Your task to perform on an android device: Open Amazon Image 0: 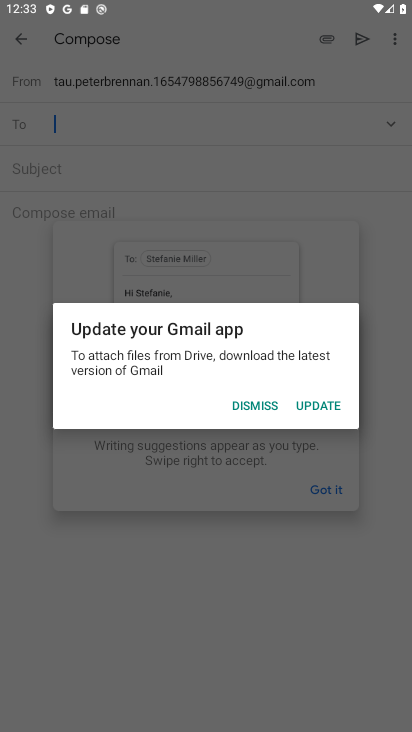
Step 0: press home button
Your task to perform on an android device: Open Amazon Image 1: 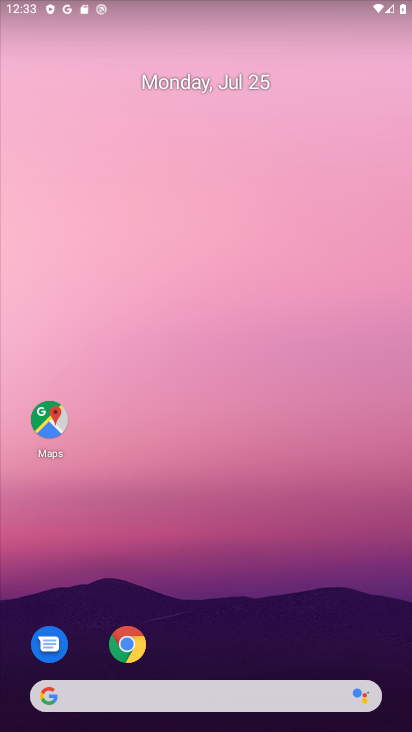
Step 1: click (129, 647)
Your task to perform on an android device: Open Amazon Image 2: 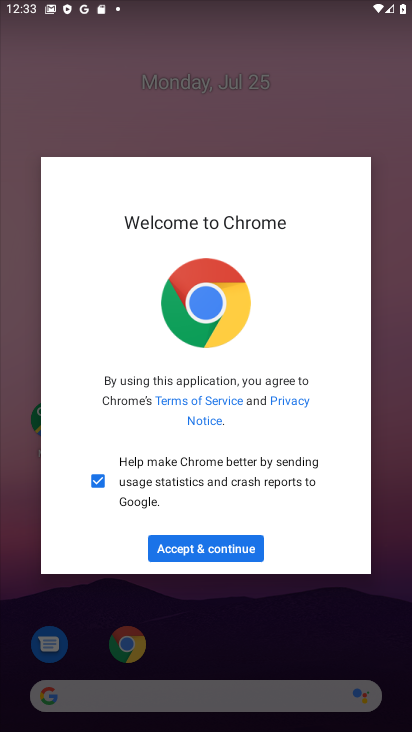
Step 2: click (202, 547)
Your task to perform on an android device: Open Amazon Image 3: 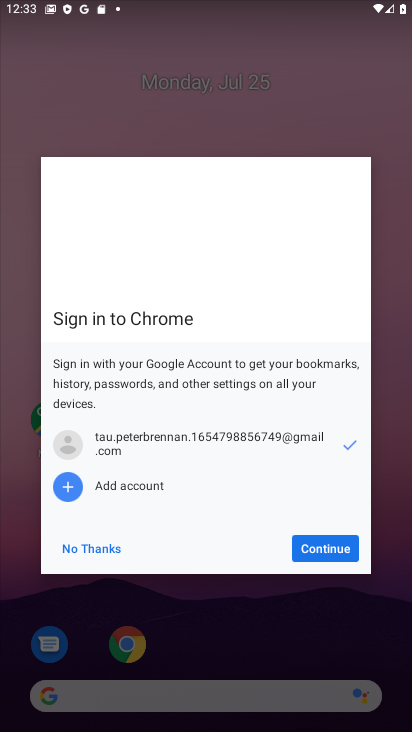
Step 3: click (202, 547)
Your task to perform on an android device: Open Amazon Image 4: 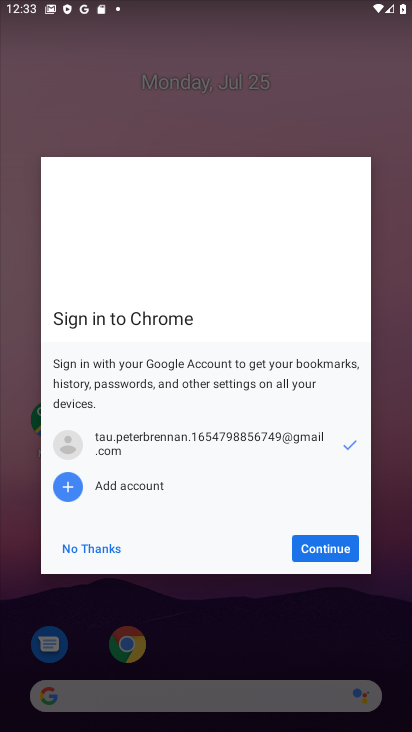
Step 4: click (317, 544)
Your task to perform on an android device: Open Amazon Image 5: 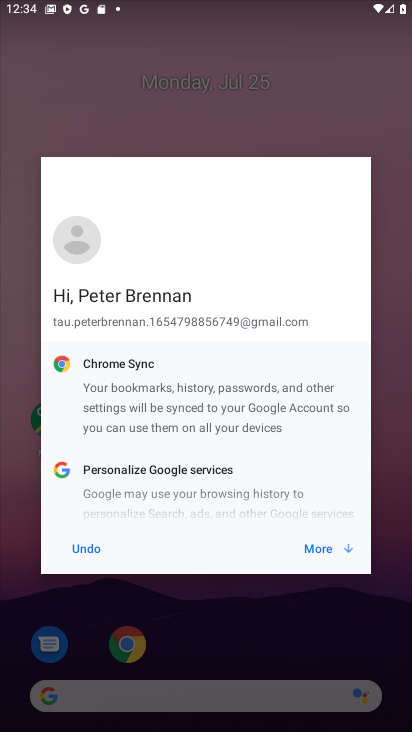
Step 5: click (317, 544)
Your task to perform on an android device: Open Amazon Image 6: 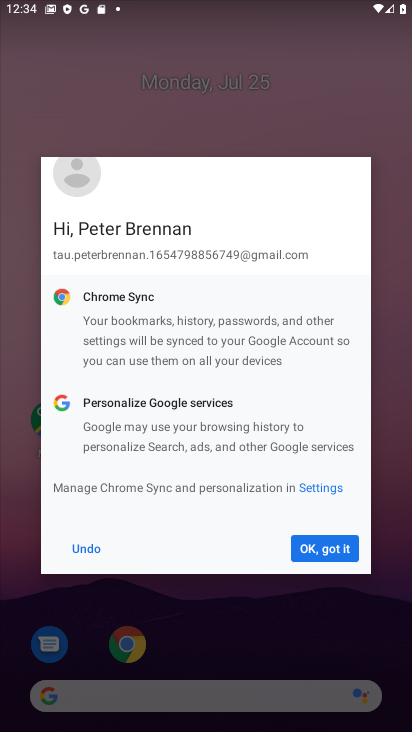
Step 6: click (314, 543)
Your task to perform on an android device: Open Amazon Image 7: 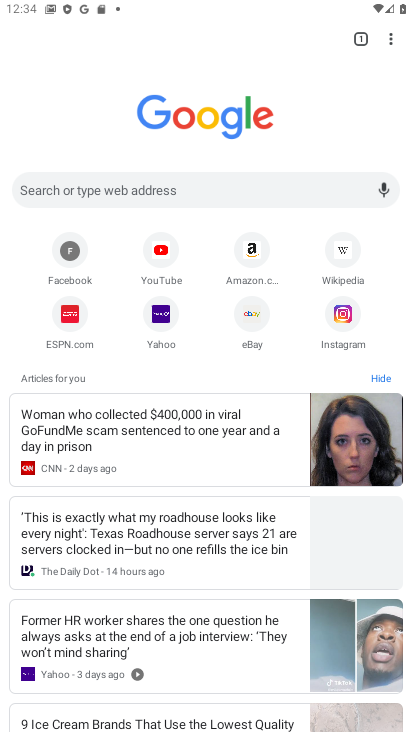
Step 7: click (262, 244)
Your task to perform on an android device: Open Amazon Image 8: 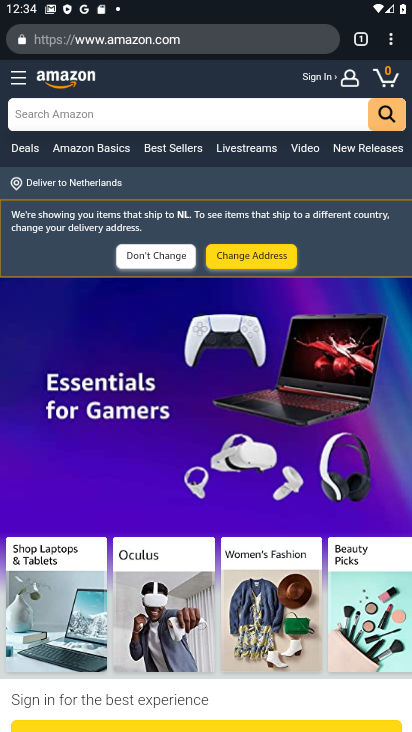
Step 8: task complete